Your task to perform on an android device: all mails in gmail Image 0: 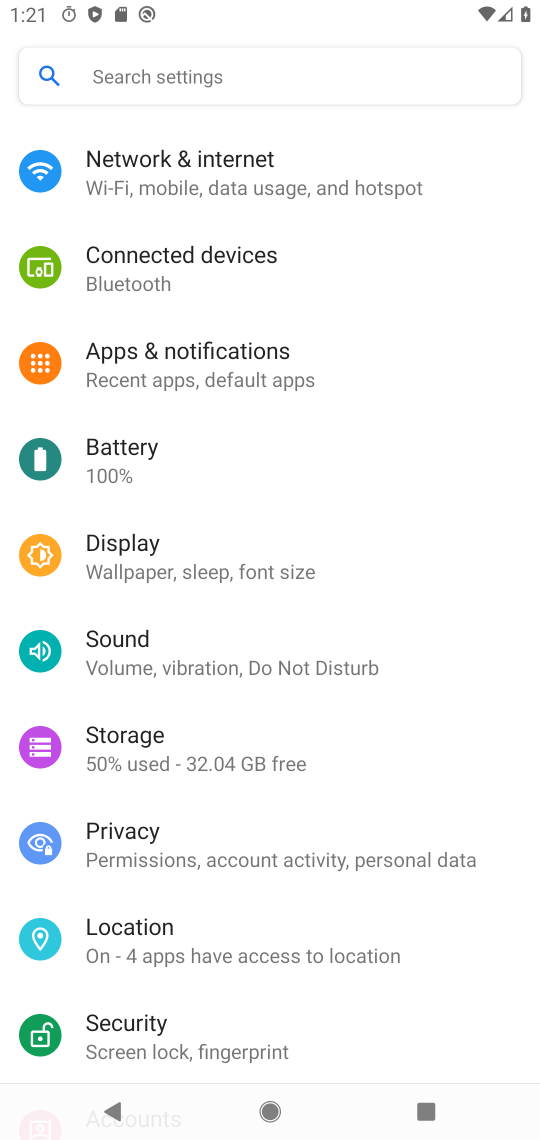
Step 0: press home button
Your task to perform on an android device: all mails in gmail Image 1: 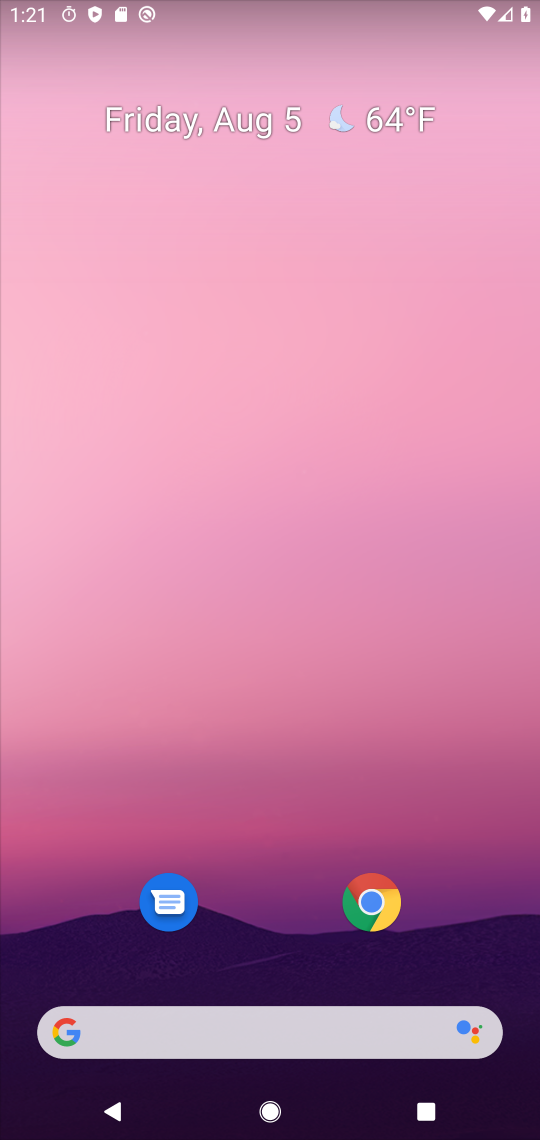
Step 1: drag from (310, 1053) to (346, 207)
Your task to perform on an android device: all mails in gmail Image 2: 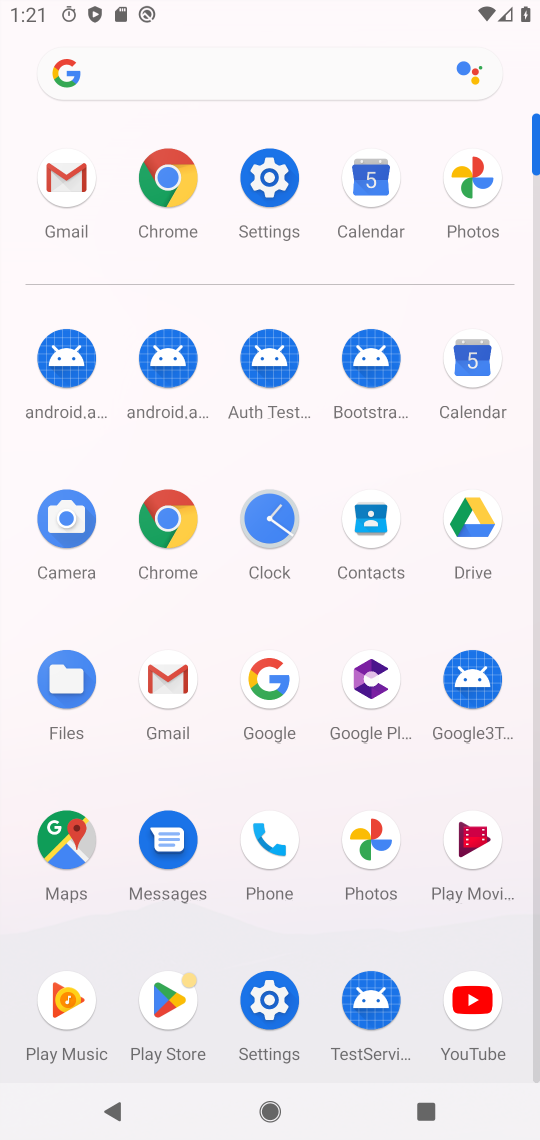
Step 2: click (79, 170)
Your task to perform on an android device: all mails in gmail Image 3: 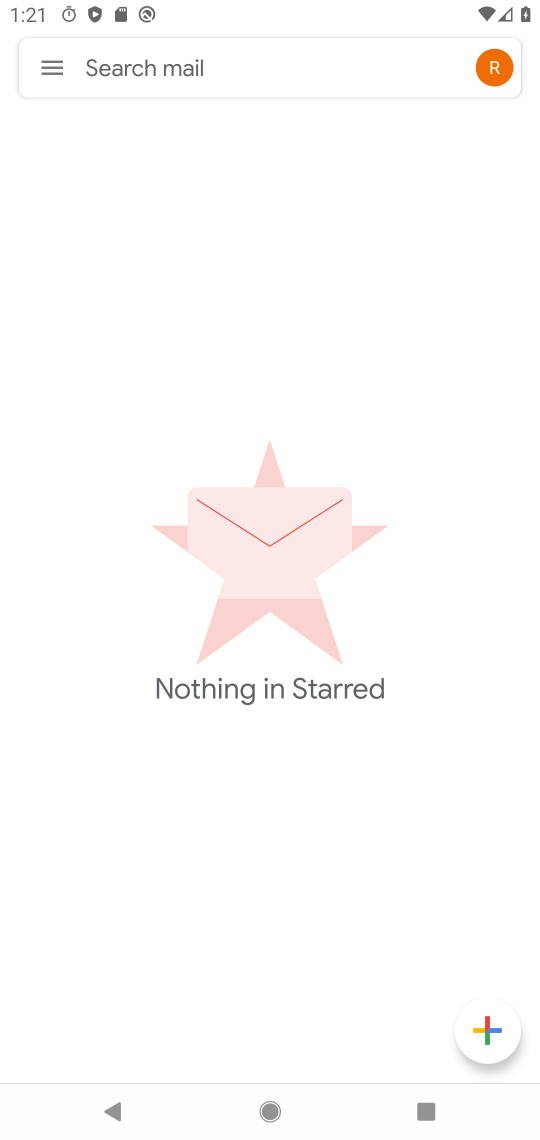
Step 3: click (42, 88)
Your task to perform on an android device: all mails in gmail Image 4: 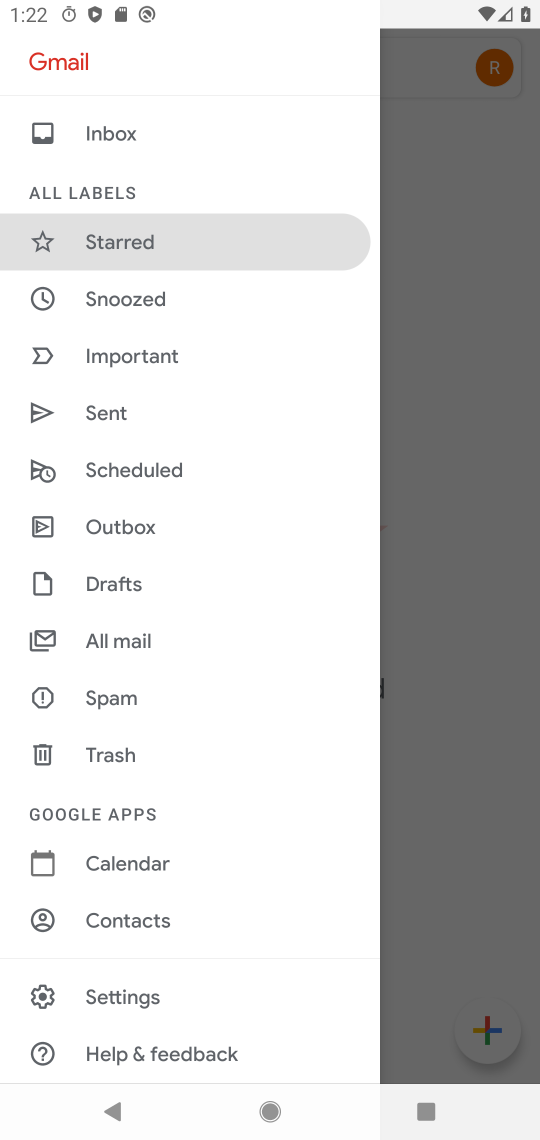
Step 4: click (119, 649)
Your task to perform on an android device: all mails in gmail Image 5: 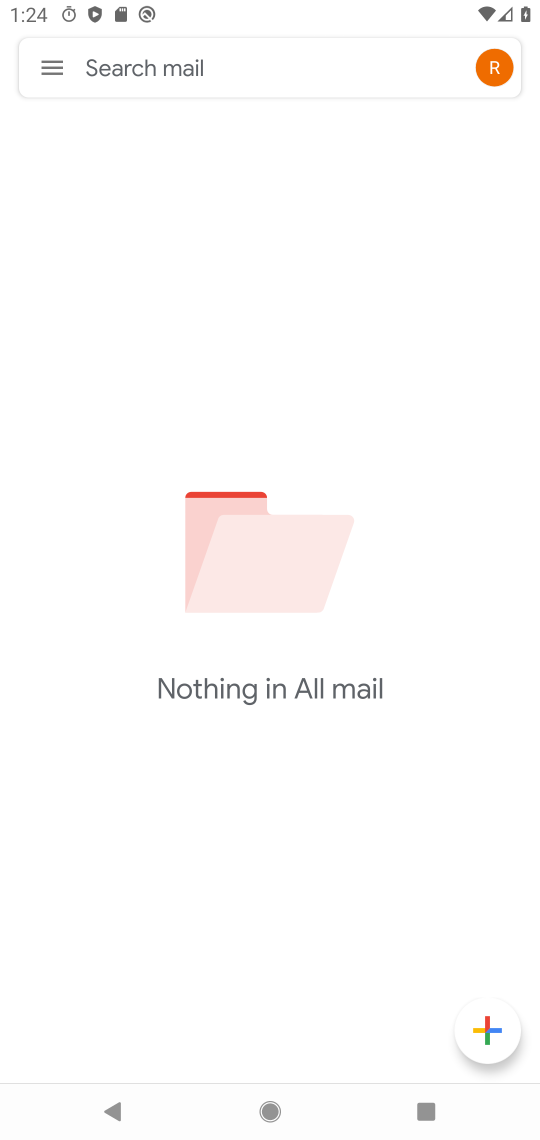
Step 5: task complete